Your task to perform on an android device: Open settings Image 0: 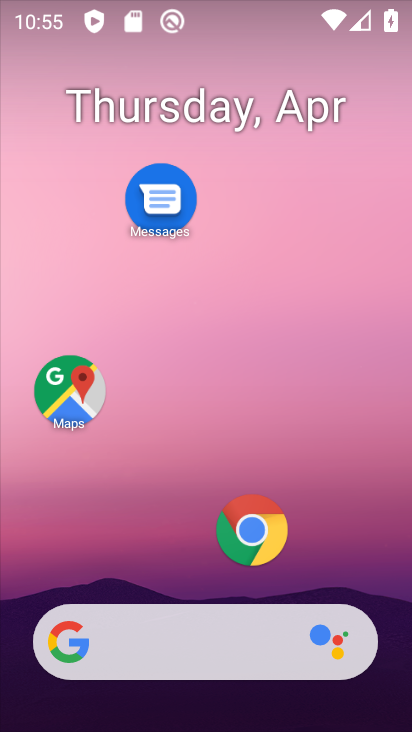
Step 0: drag from (213, 675) to (211, 144)
Your task to perform on an android device: Open settings Image 1: 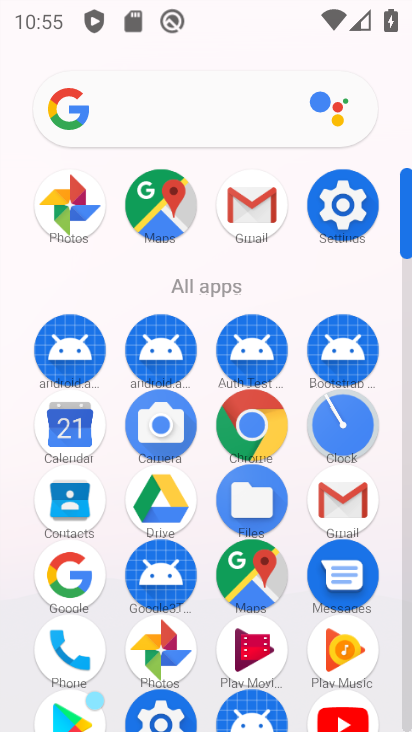
Step 1: click (342, 205)
Your task to perform on an android device: Open settings Image 2: 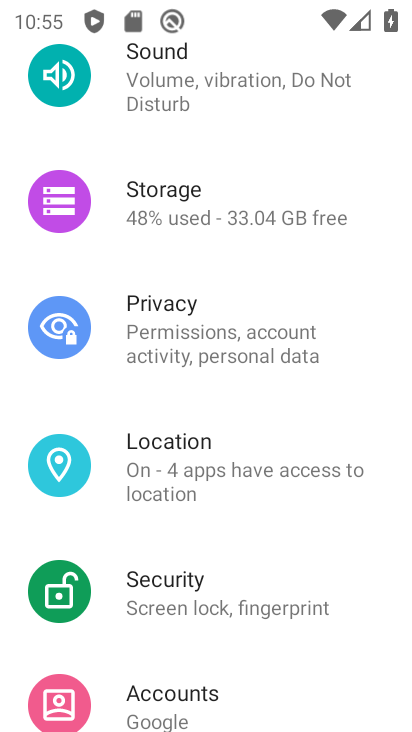
Step 2: task complete